Your task to perform on an android device: change timer sound Image 0: 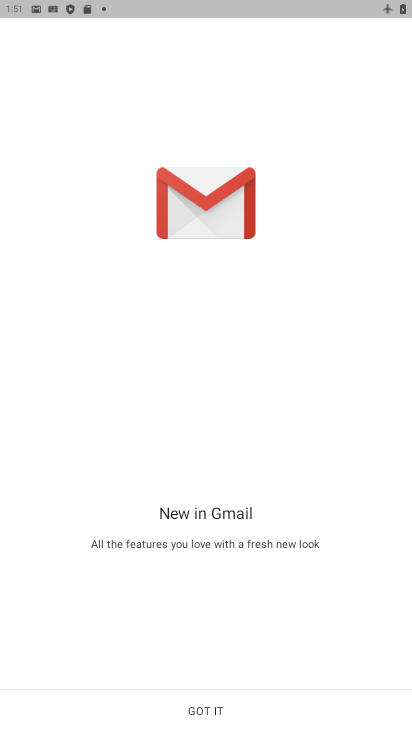
Step 0: drag from (329, 638) to (286, 247)
Your task to perform on an android device: change timer sound Image 1: 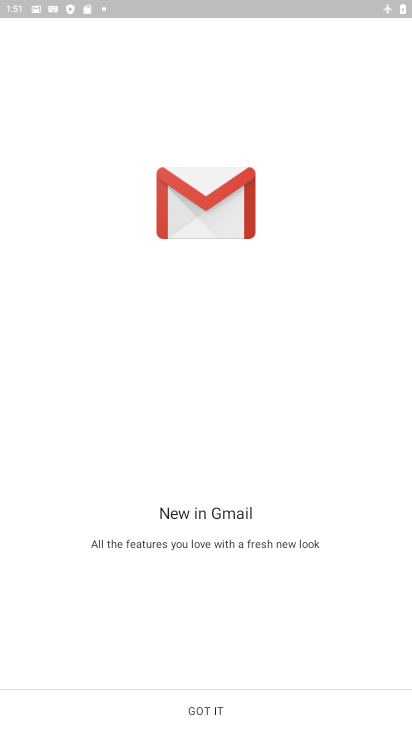
Step 1: press home button
Your task to perform on an android device: change timer sound Image 2: 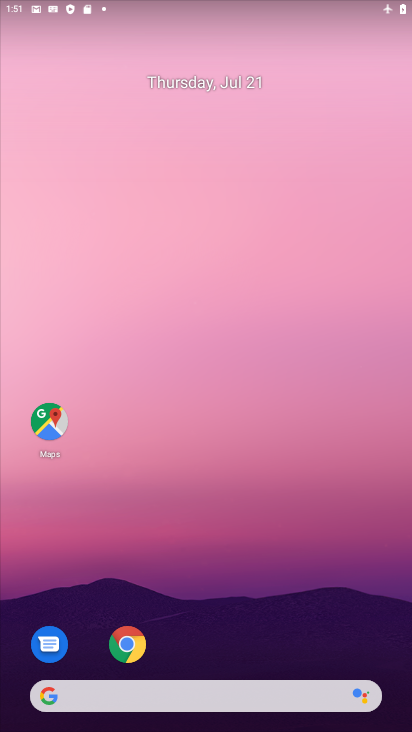
Step 2: drag from (219, 653) to (206, 124)
Your task to perform on an android device: change timer sound Image 3: 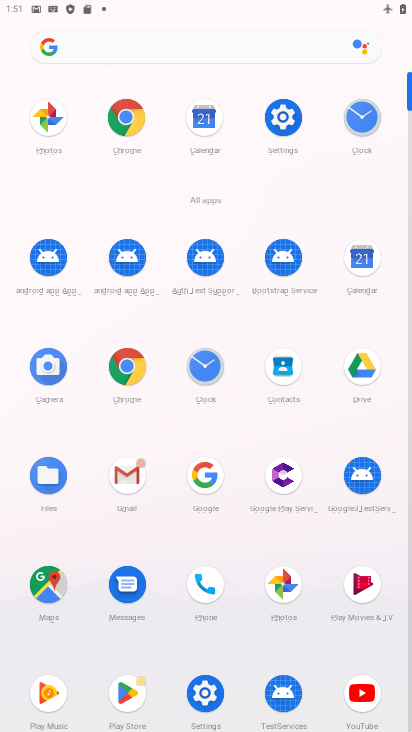
Step 3: click (366, 120)
Your task to perform on an android device: change timer sound Image 4: 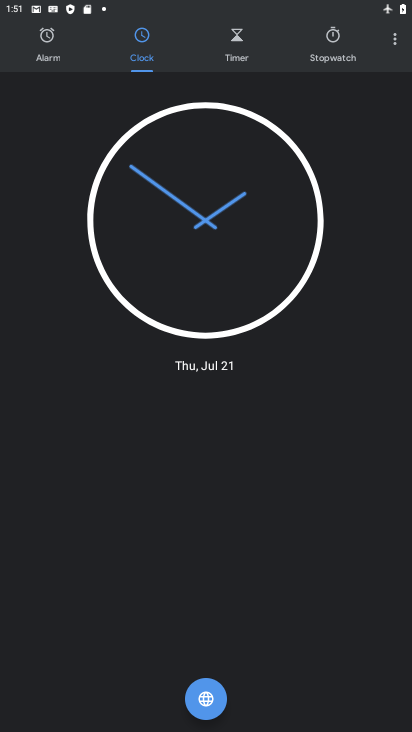
Step 4: click (399, 43)
Your task to perform on an android device: change timer sound Image 5: 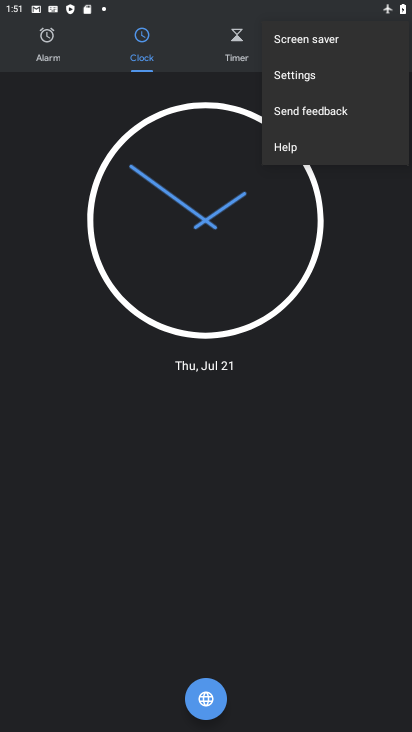
Step 5: click (331, 75)
Your task to perform on an android device: change timer sound Image 6: 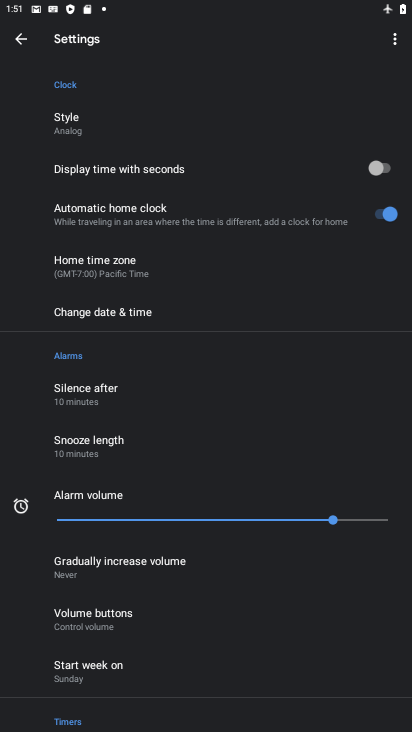
Step 6: drag from (199, 629) to (191, 326)
Your task to perform on an android device: change timer sound Image 7: 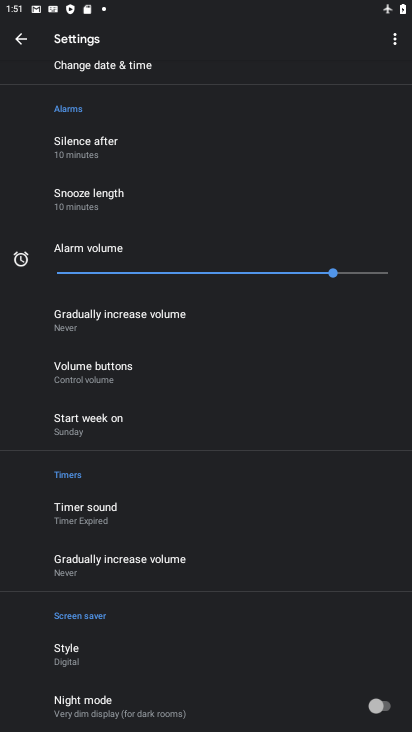
Step 7: click (172, 514)
Your task to perform on an android device: change timer sound Image 8: 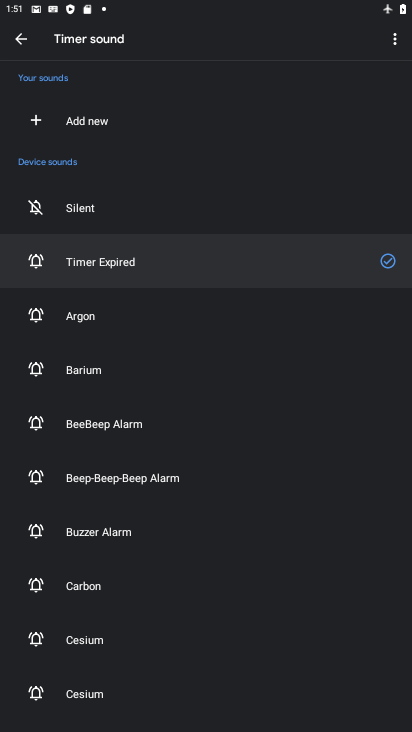
Step 8: click (166, 516)
Your task to perform on an android device: change timer sound Image 9: 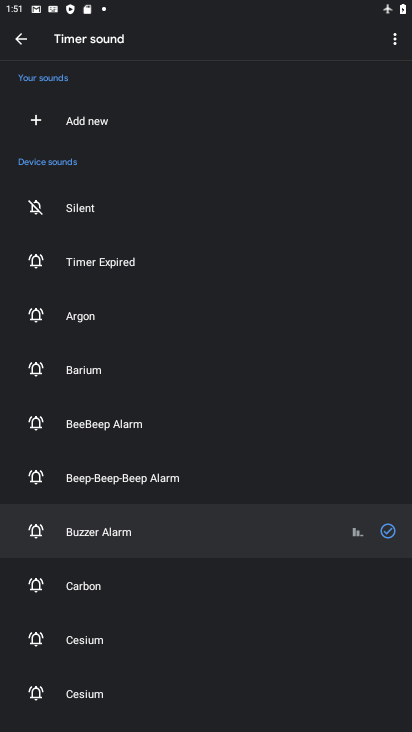
Step 9: task complete